Your task to perform on an android device: Open Chrome and go to the settings page Image 0: 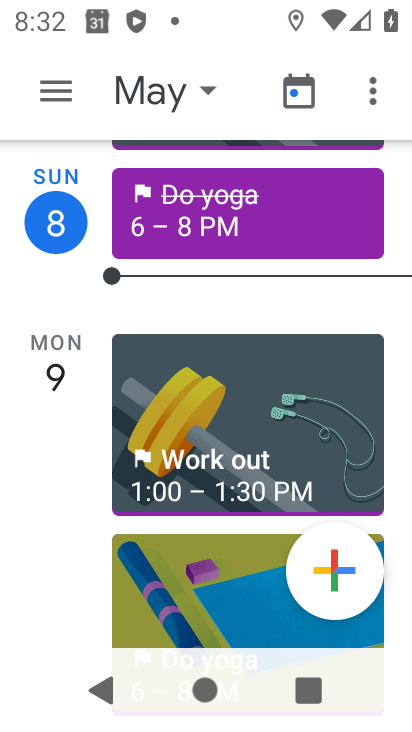
Step 0: press home button
Your task to perform on an android device: Open Chrome and go to the settings page Image 1: 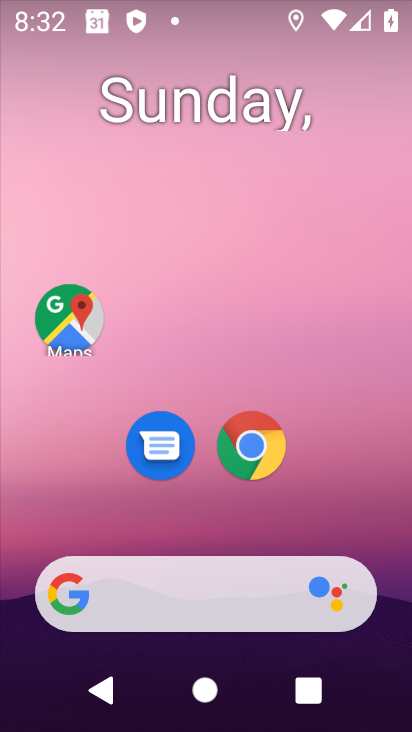
Step 1: drag from (370, 202) to (383, 98)
Your task to perform on an android device: Open Chrome and go to the settings page Image 2: 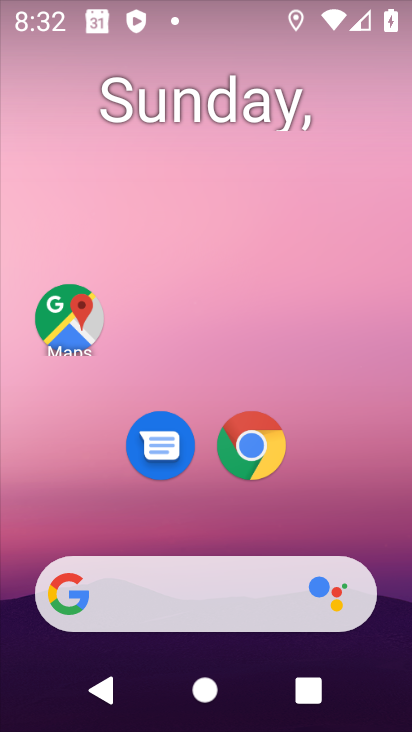
Step 2: drag from (361, 527) to (271, 91)
Your task to perform on an android device: Open Chrome and go to the settings page Image 3: 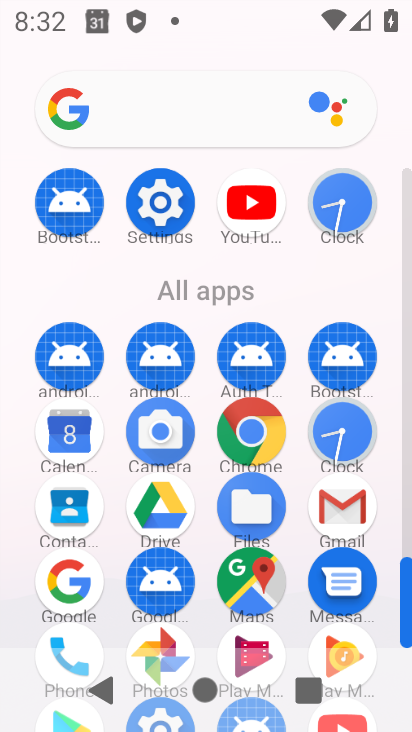
Step 3: click (265, 437)
Your task to perform on an android device: Open Chrome and go to the settings page Image 4: 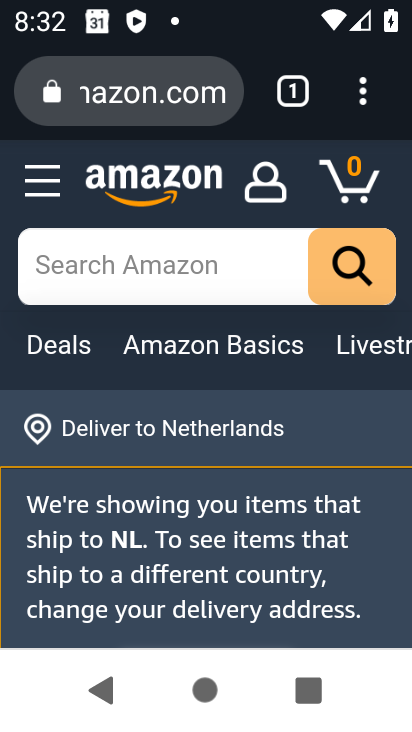
Step 4: task complete